Your task to perform on an android device: Open Google Image 0: 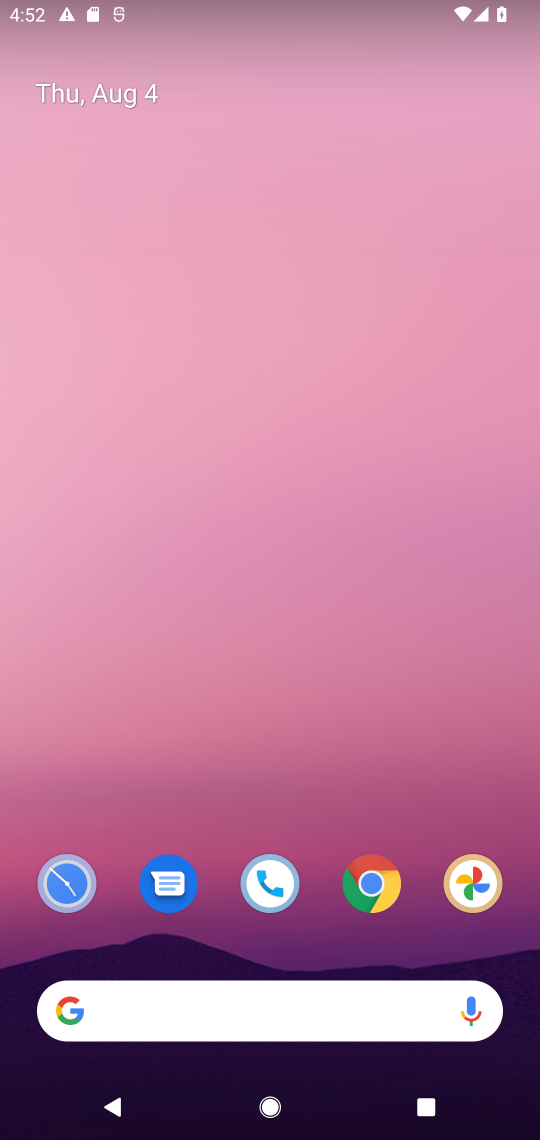
Step 0: drag from (298, 1002) to (282, 77)
Your task to perform on an android device: Open Google Image 1: 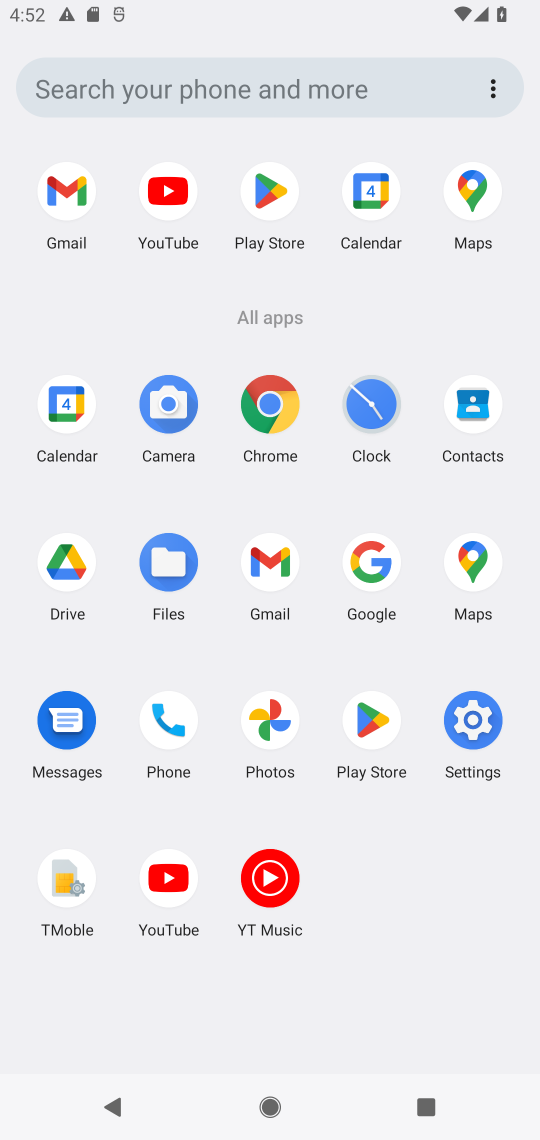
Step 1: click (368, 585)
Your task to perform on an android device: Open Google Image 2: 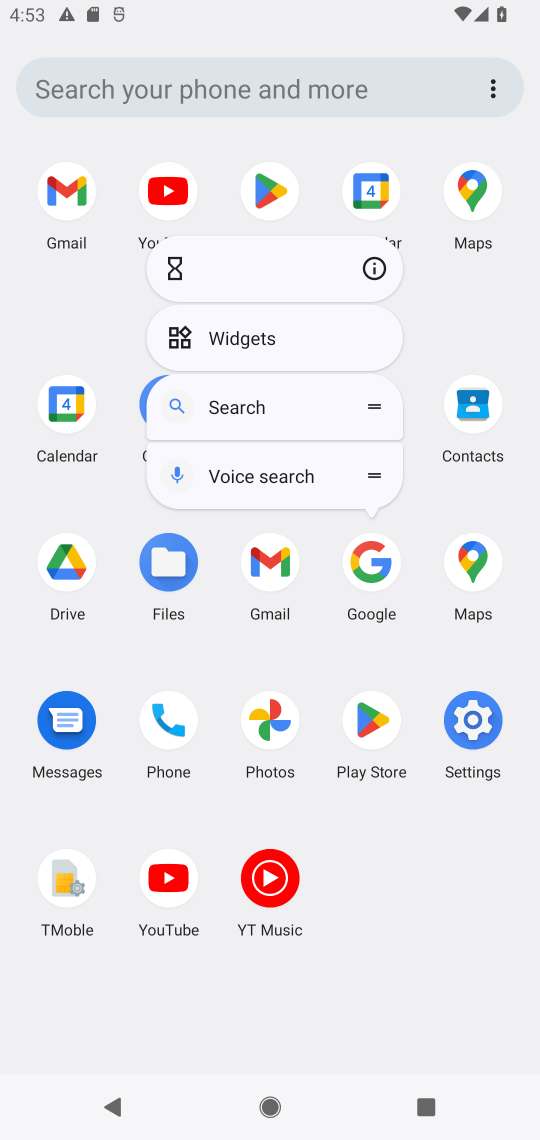
Step 2: click (368, 585)
Your task to perform on an android device: Open Google Image 3: 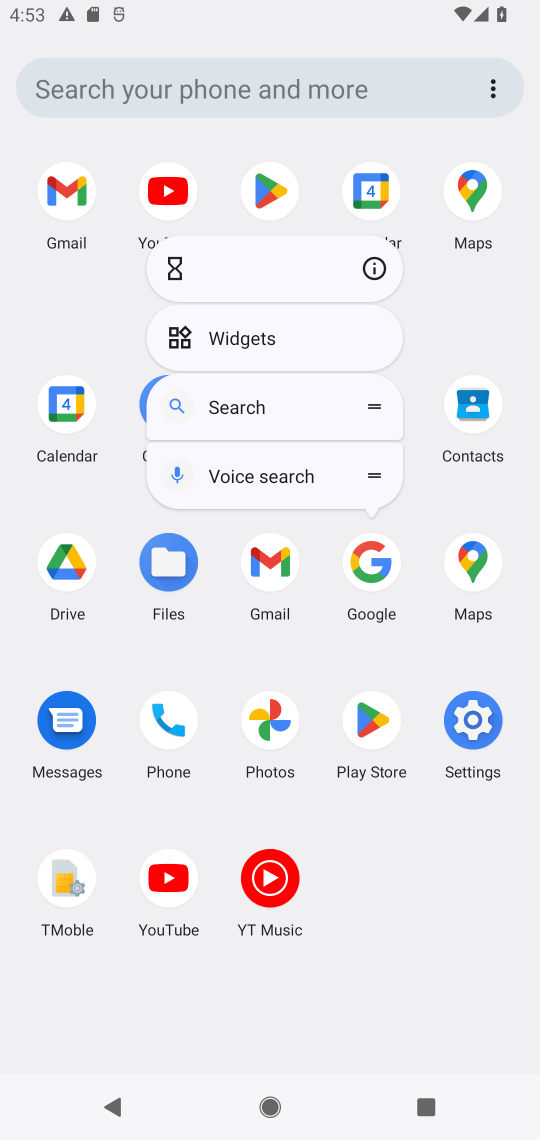
Step 3: click (366, 593)
Your task to perform on an android device: Open Google Image 4: 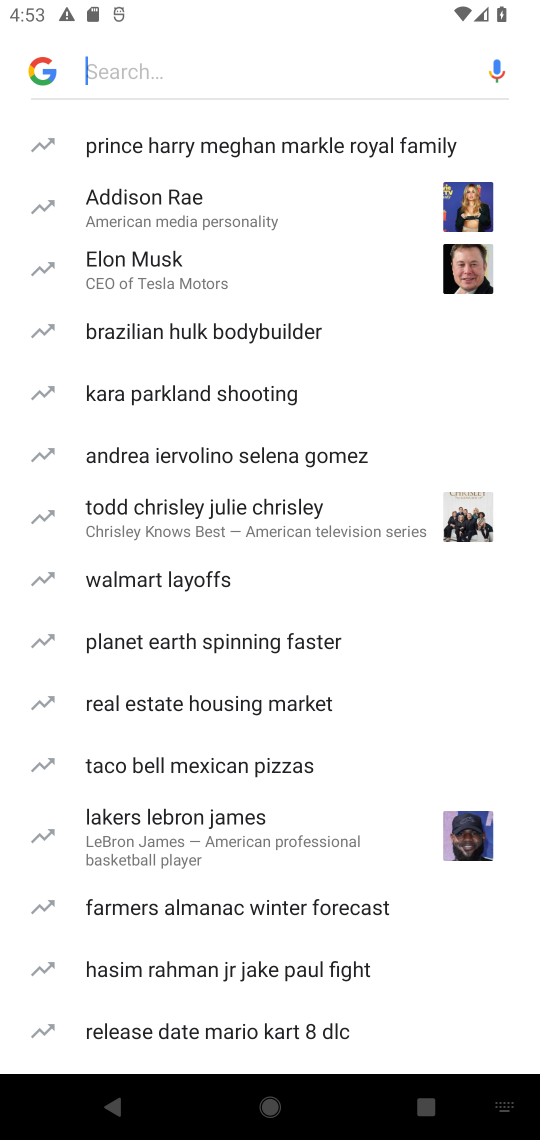
Step 4: task complete